Your task to perform on an android device: turn on data saver in the chrome app Image 0: 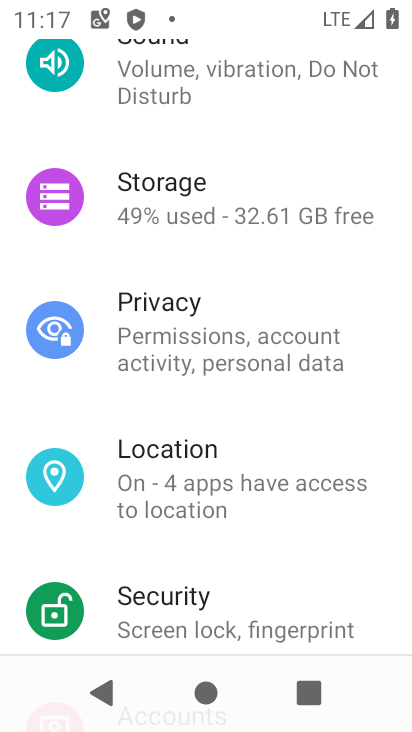
Step 0: press home button
Your task to perform on an android device: turn on data saver in the chrome app Image 1: 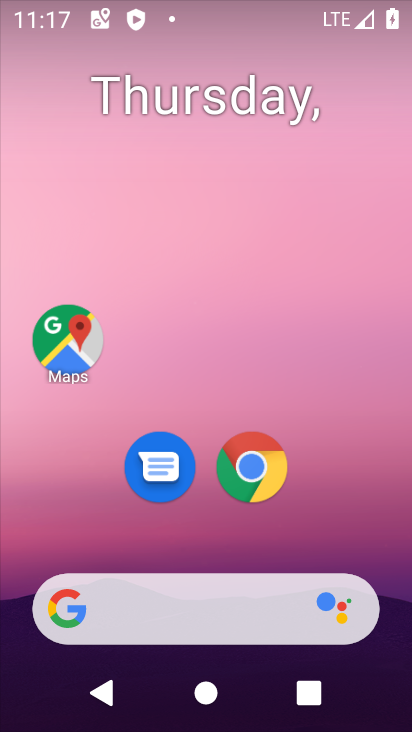
Step 1: click (261, 471)
Your task to perform on an android device: turn on data saver in the chrome app Image 2: 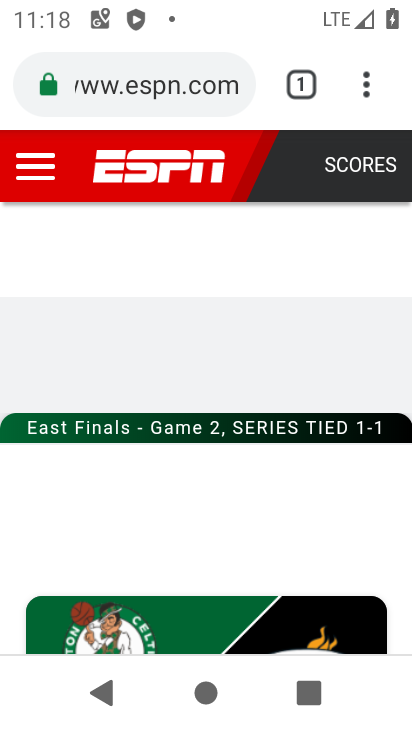
Step 2: drag from (360, 84) to (104, 519)
Your task to perform on an android device: turn on data saver in the chrome app Image 3: 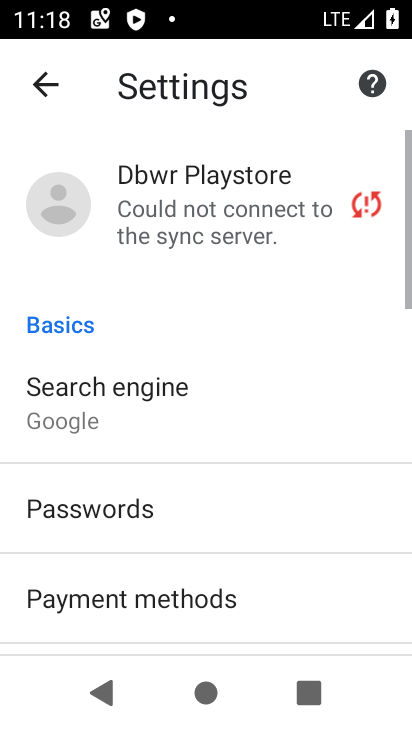
Step 3: drag from (217, 579) to (324, 58)
Your task to perform on an android device: turn on data saver in the chrome app Image 4: 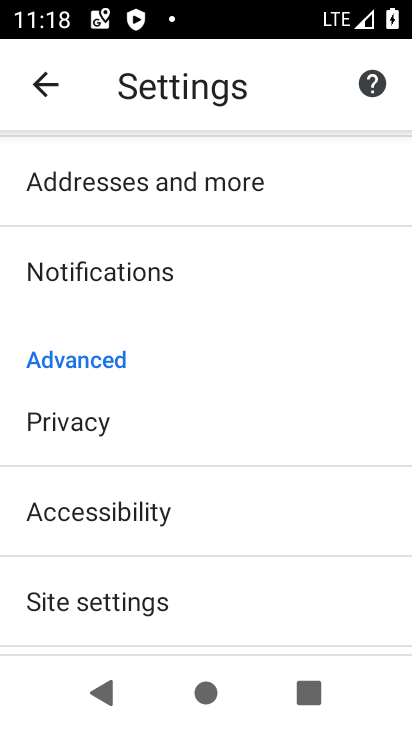
Step 4: drag from (161, 578) to (278, 107)
Your task to perform on an android device: turn on data saver in the chrome app Image 5: 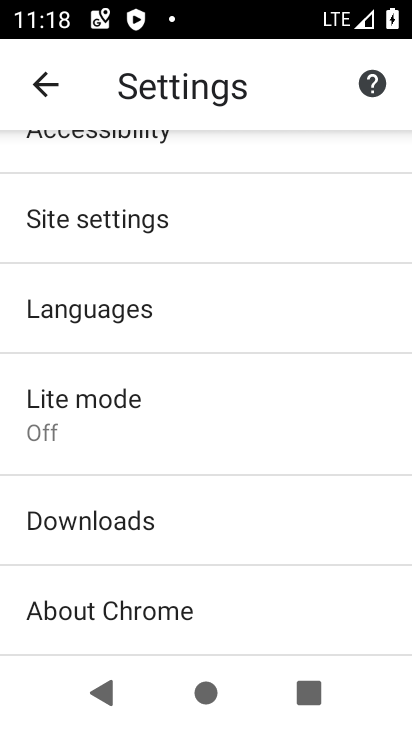
Step 5: click (89, 419)
Your task to perform on an android device: turn on data saver in the chrome app Image 6: 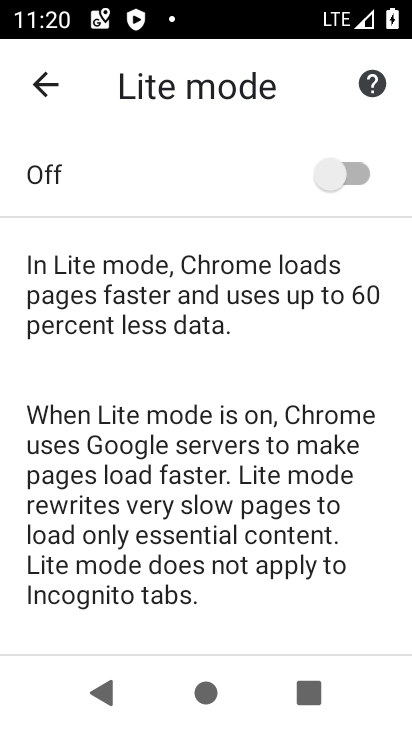
Step 6: click (332, 174)
Your task to perform on an android device: turn on data saver in the chrome app Image 7: 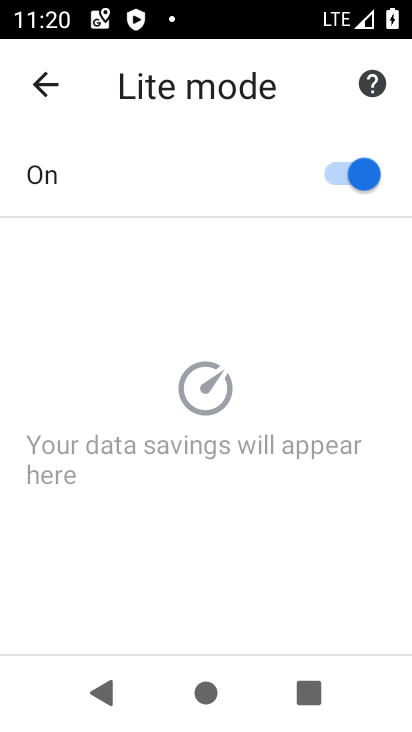
Step 7: task complete